Your task to perform on an android device: add a contact in the contacts app Image 0: 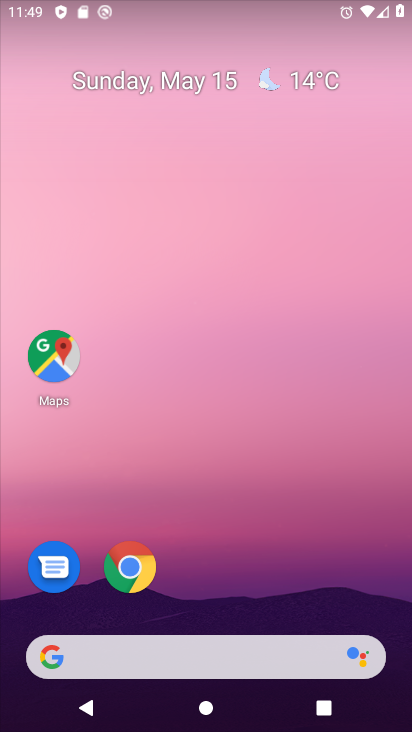
Step 0: drag from (250, 521) to (275, 18)
Your task to perform on an android device: add a contact in the contacts app Image 1: 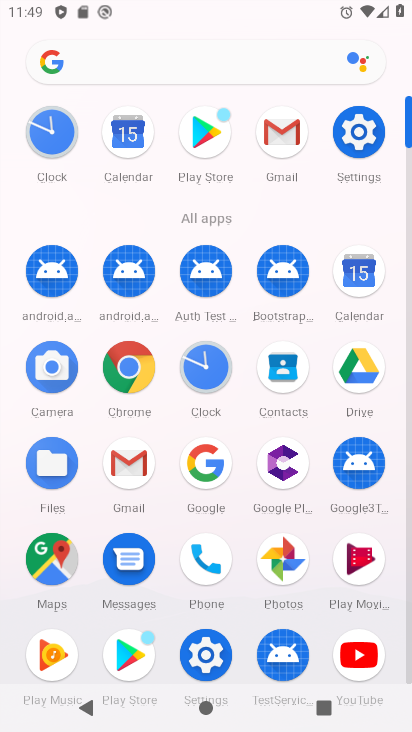
Step 1: click (286, 368)
Your task to perform on an android device: add a contact in the contacts app Image 2: 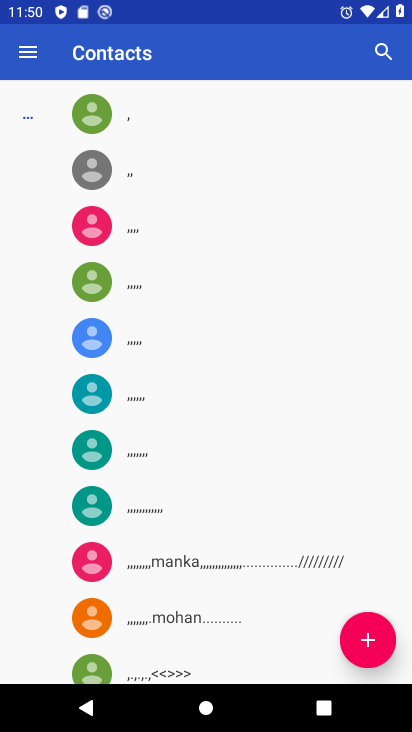
Step 2: click (370, 637)
Your task to perform on an android device: add a contact in the contacts app Image 3: 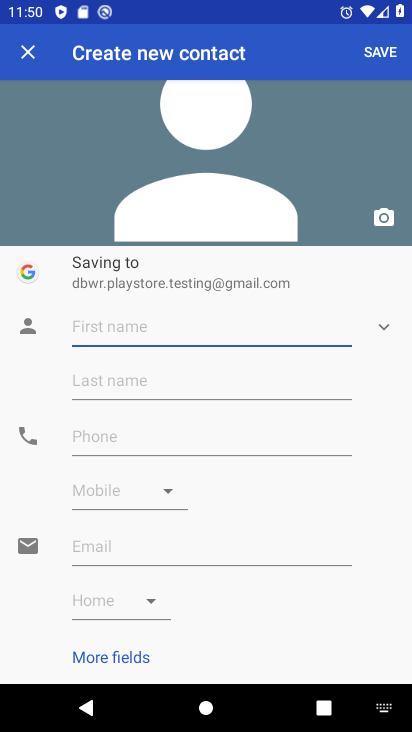
Step 3: type "asdfghjll"
Your task to perform on an android device: add a contact in the contacts app Image 4: 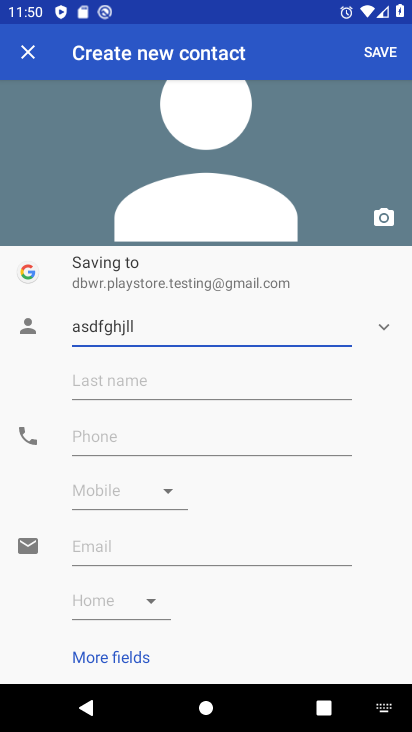
Step 4: click (146, 440)
Your task to perform on an android device: add a contact in the contacts app Image 5: 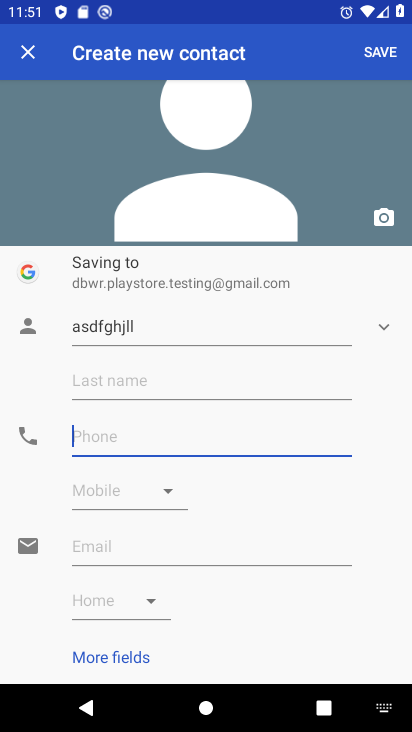
Step 5: type "9877898789"
Your task to perform on an android device: add a contact in the contacts app Image 6: 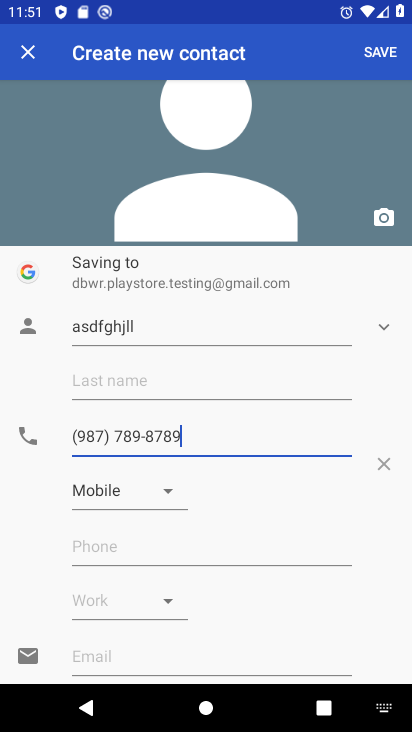
Step 6: click (371, 57)
Your task to perform on an android device: add a contact in the contacts app Image 7: 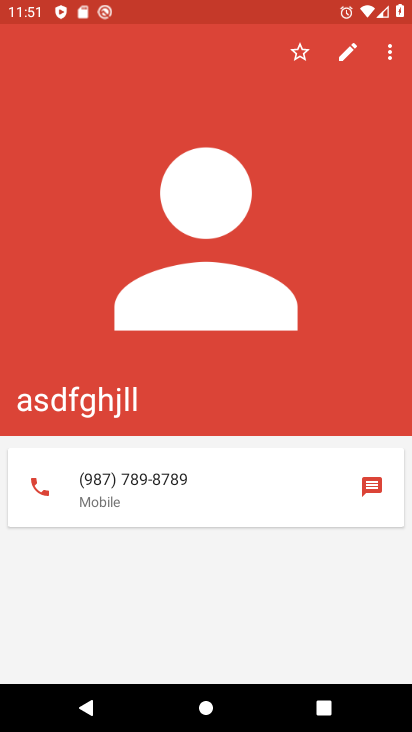
Step 7: task complete